Your task to perform on an android device: turn pop-ups on in chrome Image 0: 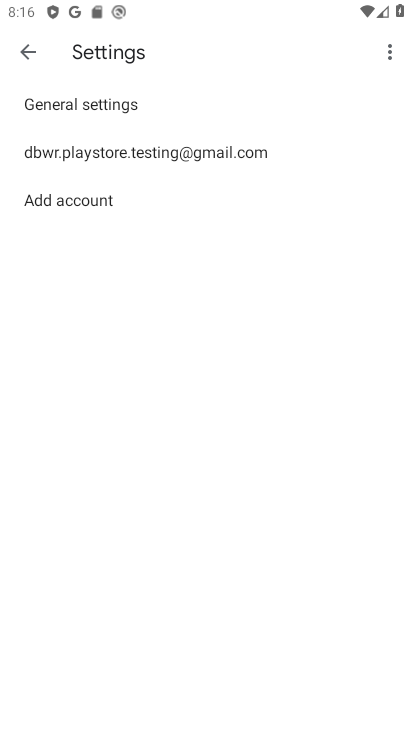
Step 0: press home button
Your task to perform on an android device: turn pop-ups on in chrome Image 1: 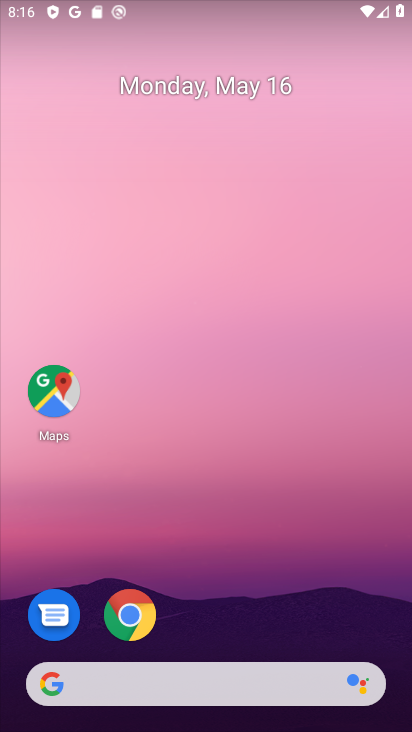
Step 1: click (130, 608)
Your task to perform on an android device: turn pop-ups on in chrome Image 2: 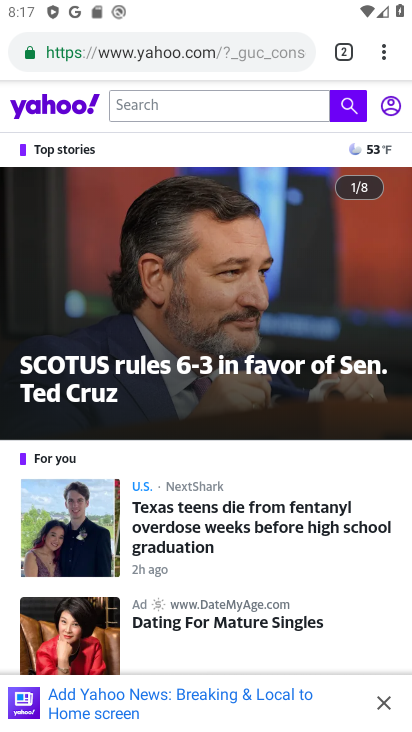
Step 2: click (379, 54)
Your task to perform on an android device: turn pop-ups on in chrome Image 3: 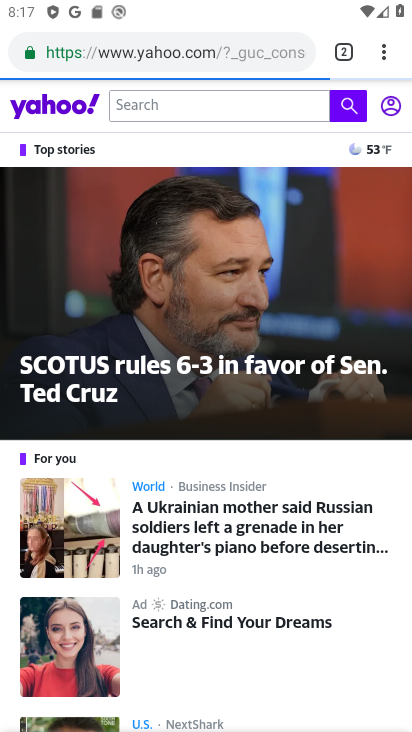
Step 3: click (390, 49)
Your task to perform on an android device: turn pop-ups on in chrome Image 4: 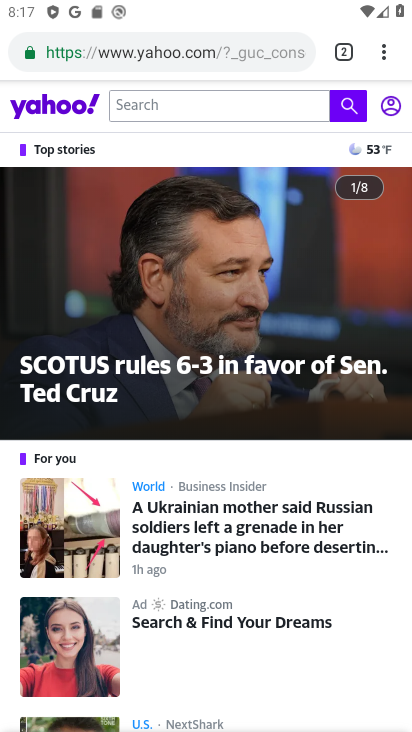
Step 4: click (381, 56)
Your task to perform on an android device: turn pop-ups on in chrome Image 5: 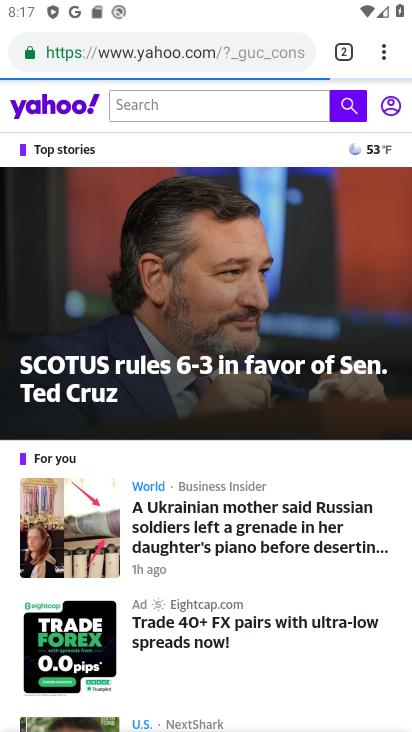
Step 5: click (381, 56)
Your task to perform on an android device: turn pop-ups on in chrome Image 6: 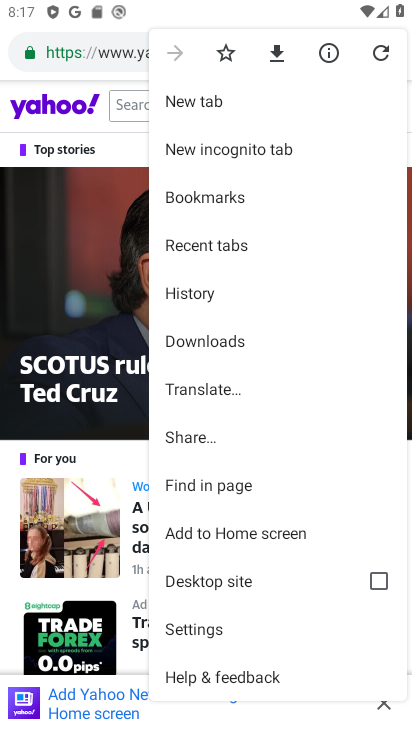
Step 6: click (200, 631)
Your task to perform on an android device: turn pop-ups on in chrome Image 7: 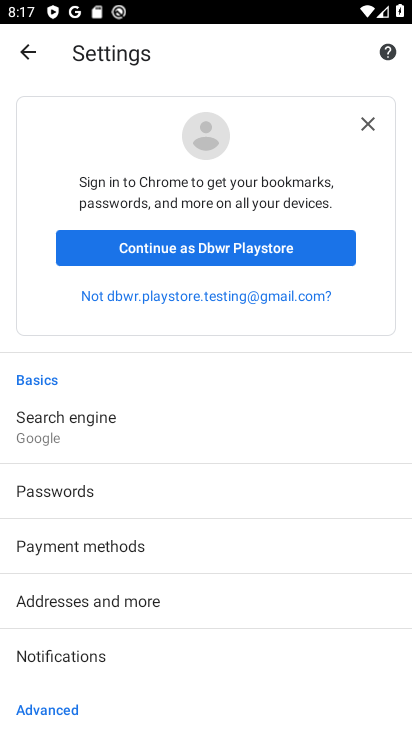
Step 7: drag from (120, 668) to (257, 256)
Your task to perform on an android device: turn pop-ups on in chrome Image 8: 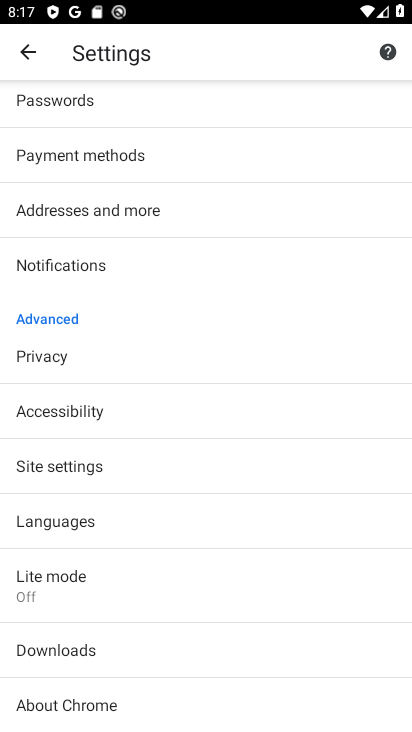
Step 8: click (155, 470)
Your task to perform on an android device: turn pop-ups on in chrome Image 9: 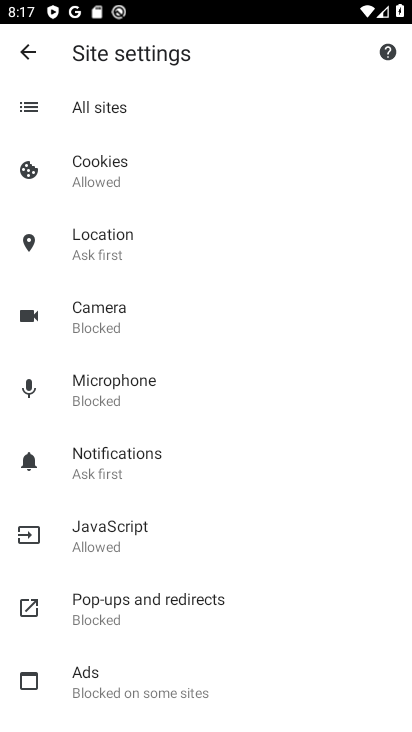
Step 9: click (113, 609)
Your task to perform on an android device: turn pop-ups on in chrome Image 10: 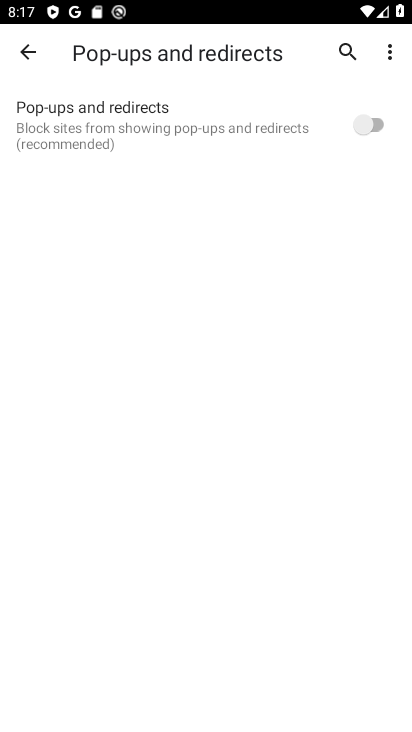
Step 10: click (364, 126)
Your task to perform on an android device: turn pop-ups on in chrome Image 11: 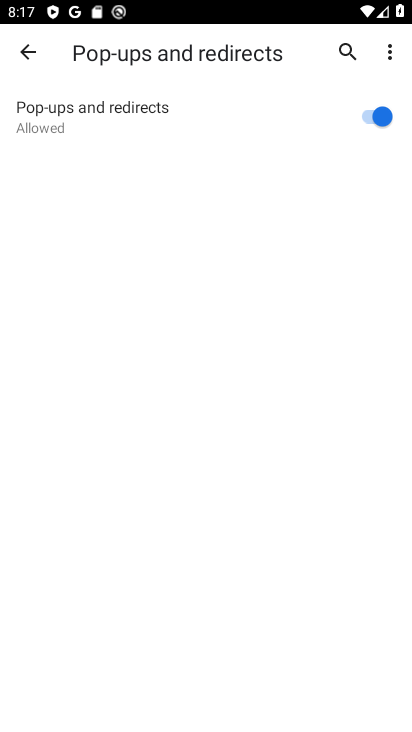
Step 11: task complete